Your task to perform on an android device: add a contact Image 0: 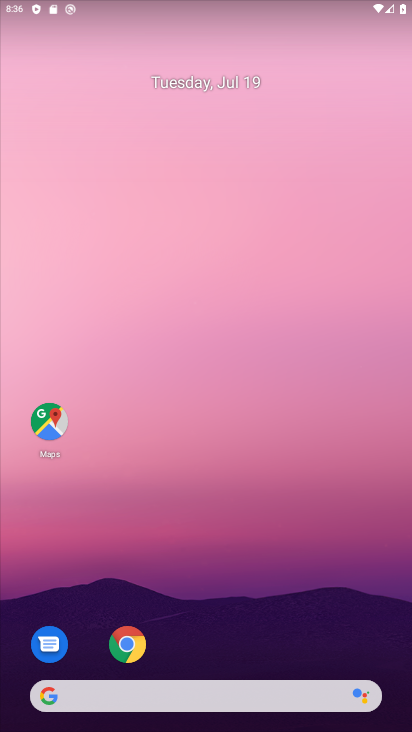
Step 0: drag from (228, 661) to (155, 124)
Your task to perform on an android device: add a contact Image 1: 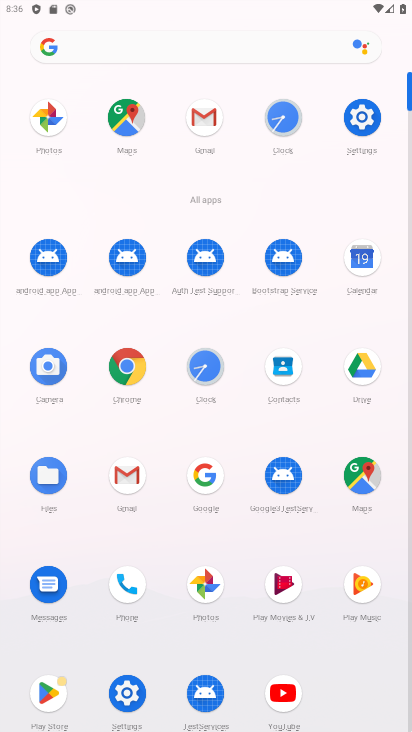
Step 1: click (284, 365)
Your task to perform on an android device: add a contact Image 2: 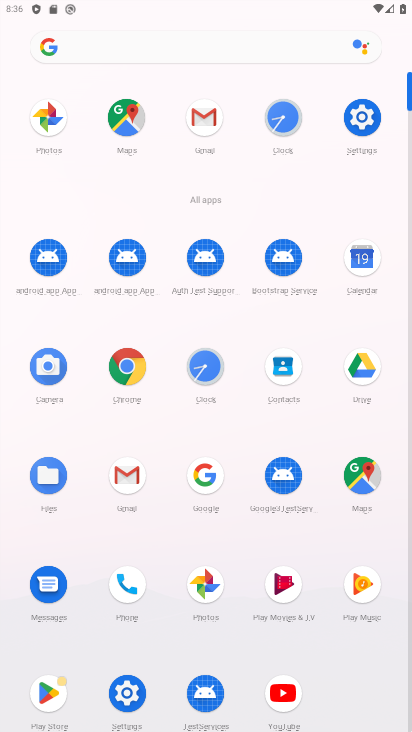
Step 2: click (284, 365)
Your task to perform on an android device: add a contact Image 3: 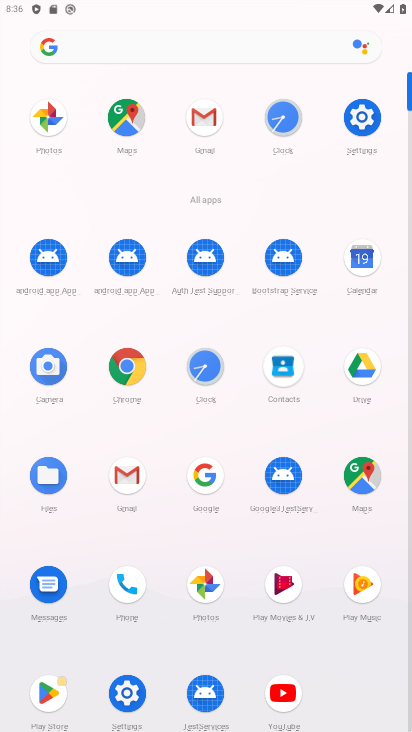
Step 3: click (284, 365)
Your task to perform on an android device: add a contact Image 4: 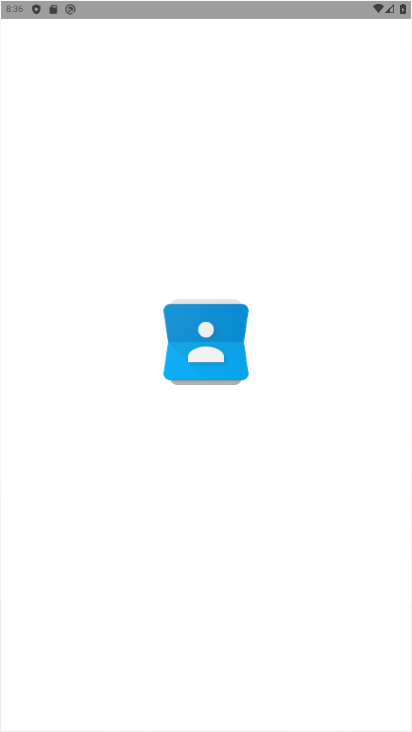
Step 4: click (284, 365)
Your task to perform on an android device: add a contact Image 5: 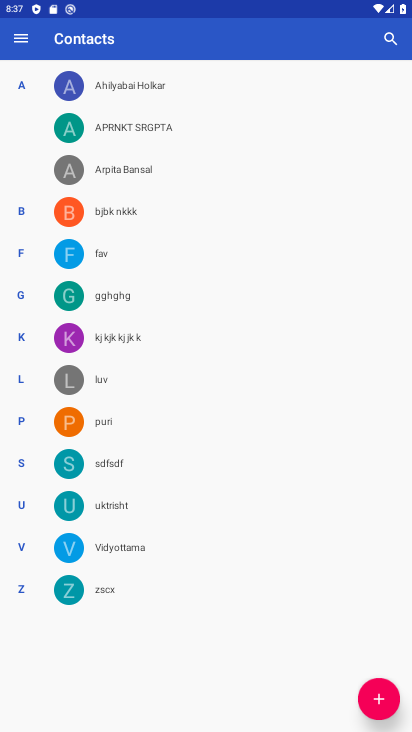
Step 5: click (383, 692)
Your task to perform on an android device: add a contact Image 6: 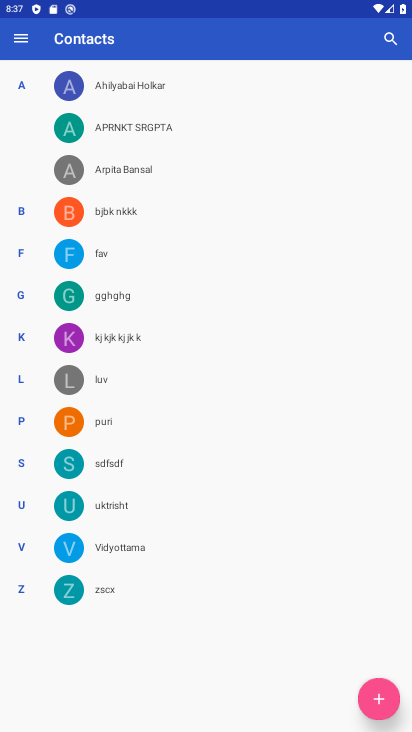
Step 6: click (384, 692)
Your task to perform on an android device: add a contact Image 7: 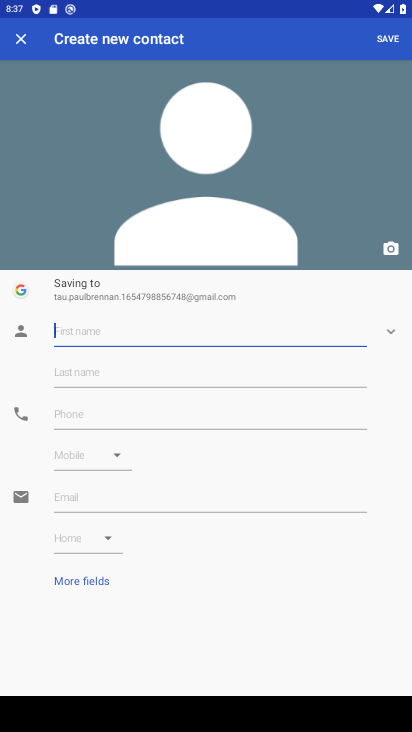
Step 7: type "vsdkbkjvk"
Your task to perform on an android device: add a contact Image 8: 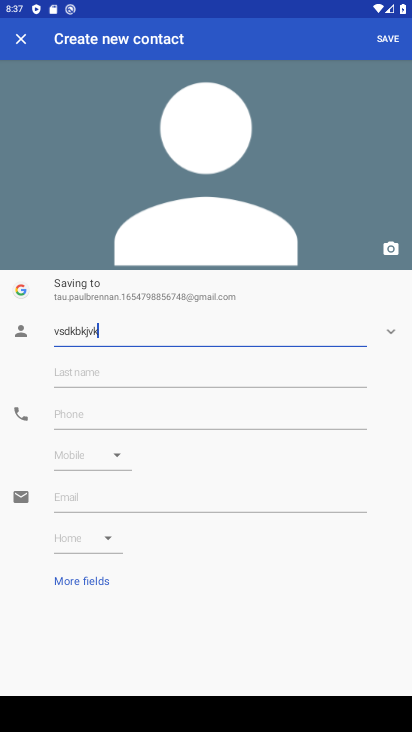
Step 8: click (78, 405)
Your task to perform on an android device: add a contact Image 9: 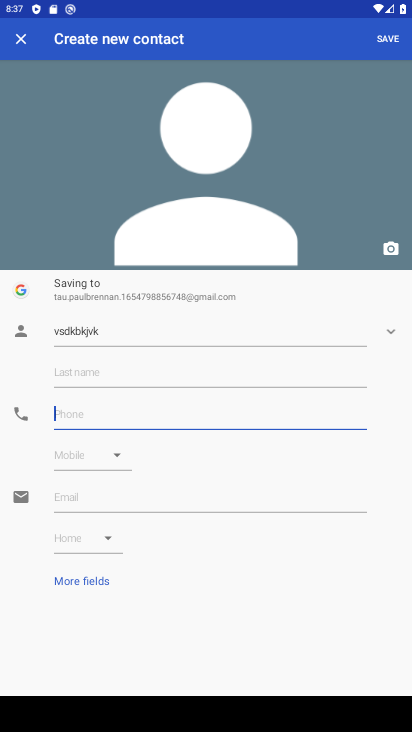
Step 9: click (57, 416)
Your task to perform on an android device: add a contact Image 10: 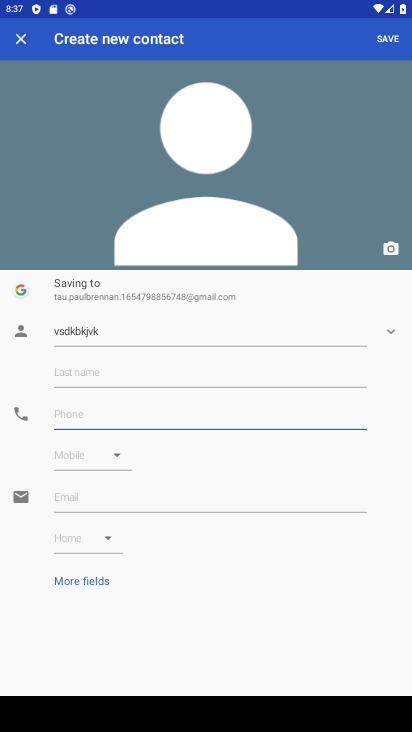
Step 10: click (57, 416)
Your task to perform on an android device: add a contact Image 11: 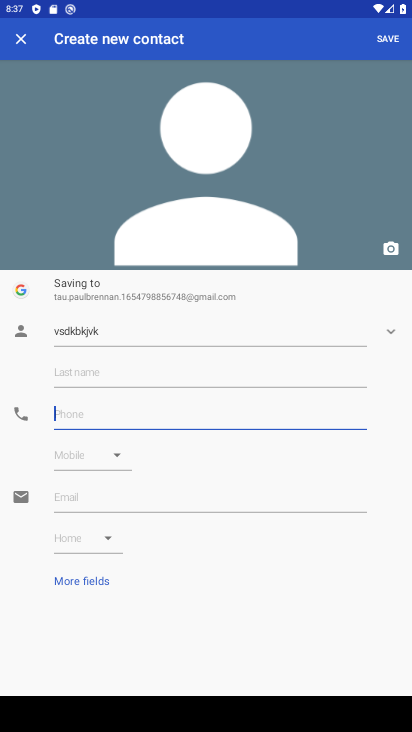
Step 11: type "736777e89389e"
Your task to perform on an android device: add a contact Image 12: 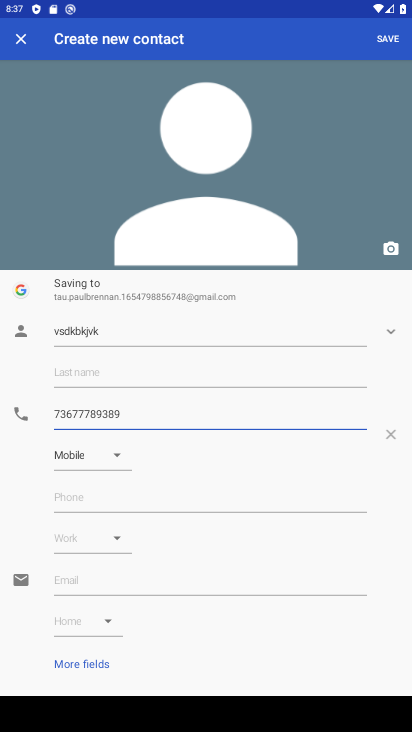
Step 12: click (389, 39)
Your task to perform on an android device: add a contact Image 13: 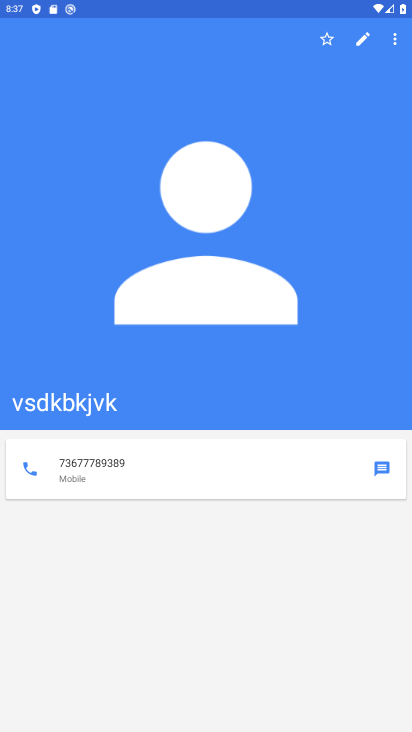
Step 13: task complete